Your task to perform on an android device: toggle wifi Image 0: 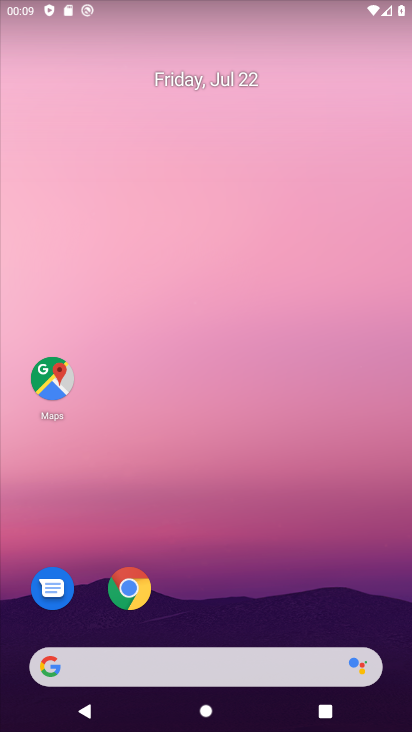
Step 0: drag from (137, 5) to (217, 574)
Your task to perform on an android device: toggle wifi Image 1: 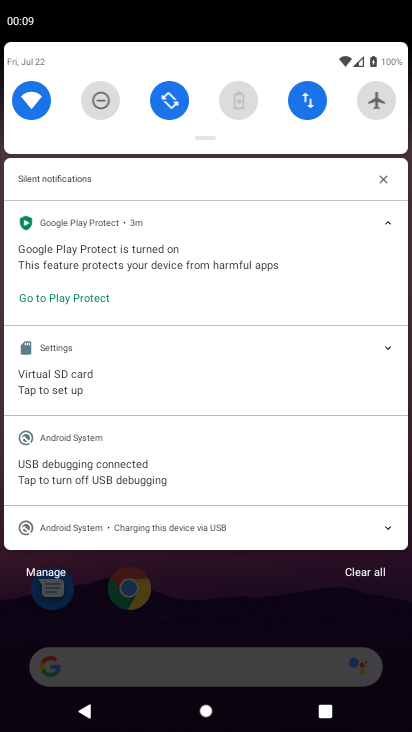
Step 1: click (35, 98)
Your task to perform on an android device: toggle wifi Image 2: 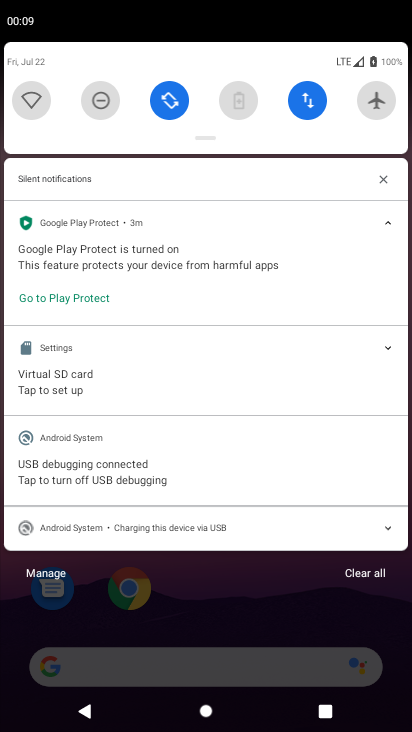
Step 2: task complete